Your task to perform on an android device: turn on the 24-hour format for clock Image 0: 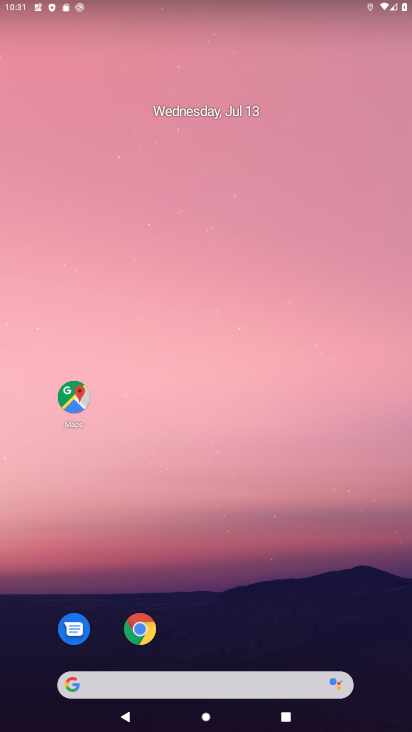
Step 0: press home button
Your task to perform on an android device: turn on the 24-hour format for clock Image 1: 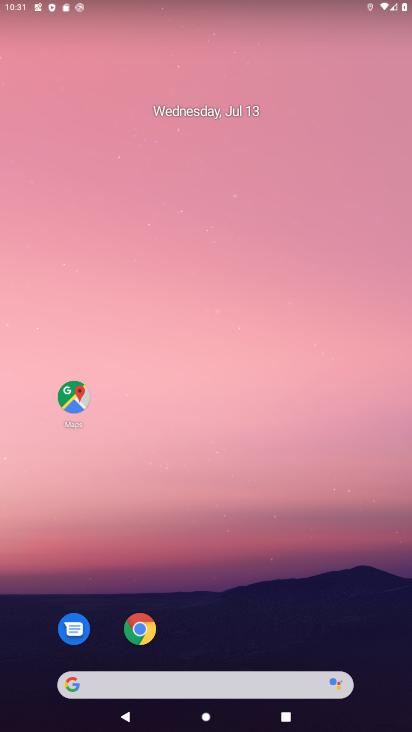
Step 1: drag from (223, 645) to (249, 24)
Your task to perform on an android device: turn on the 24-hour format for clock Image 2: 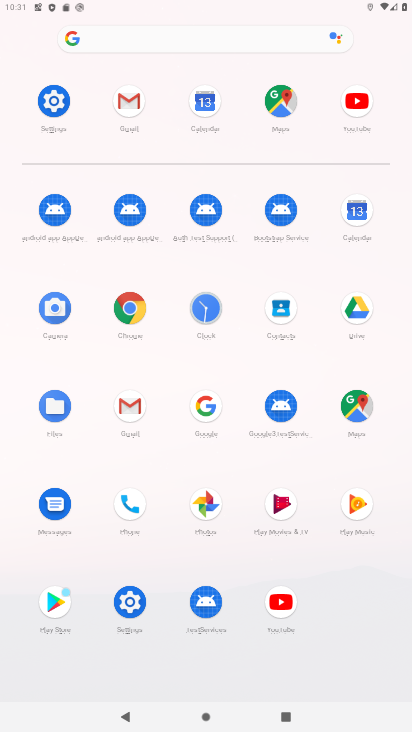
Step 2: click (203, 303)
Your task to perform on an android device: turn on the 24-hour format for clock Image 3: 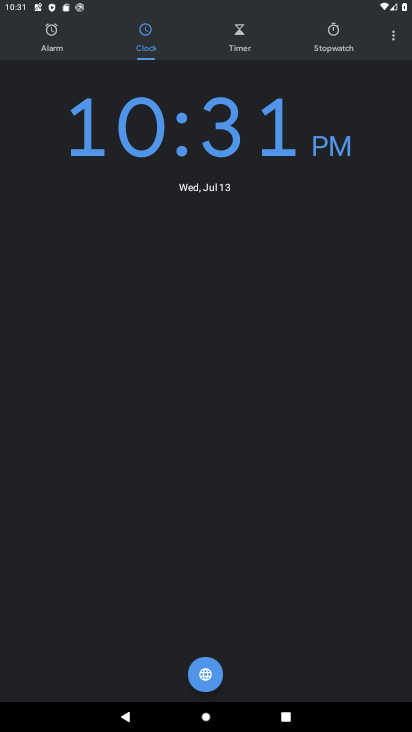
Step 3: click (397, 39)
Your task to perform on an android device: turn on the 24-hour format for clock Image 4: 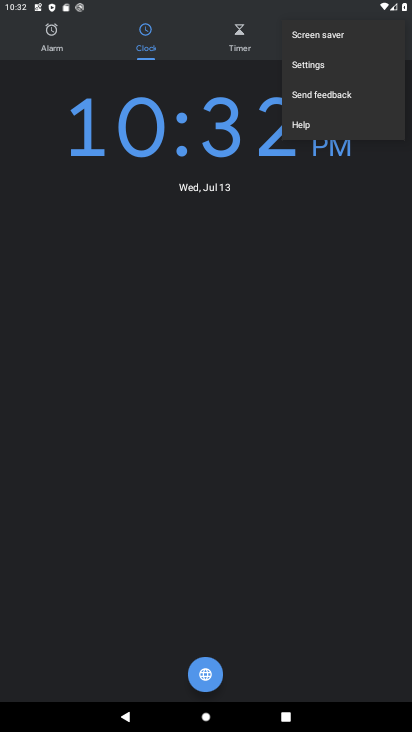
Step 4: click (332, 64)
Your task to perform on an android device: turn on the 24-hour format for clock Image 5: 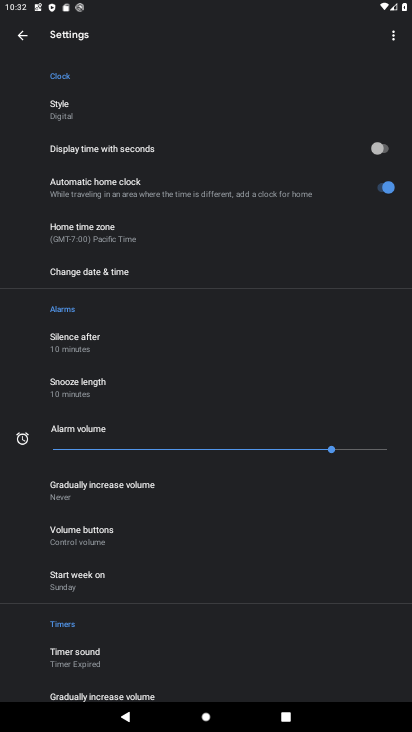
Step 5: click (140, 272)
Your task to perform on an android device: turn on the 24-hour format for clock Image 6: 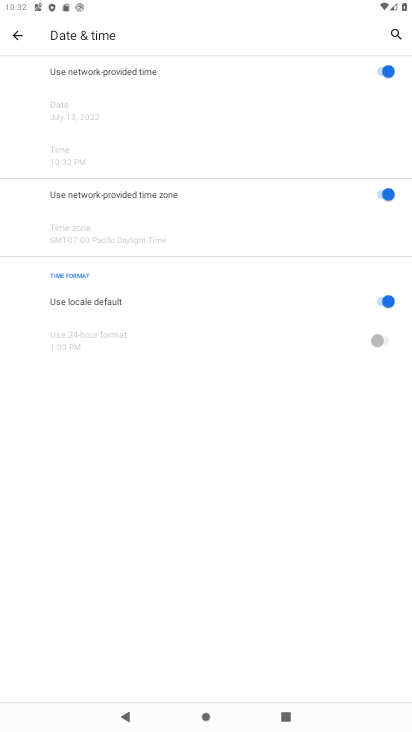
Step 6: click (393, 294)
Your task to perform on an android device: turn on the 24-hour format for clock Image 7: 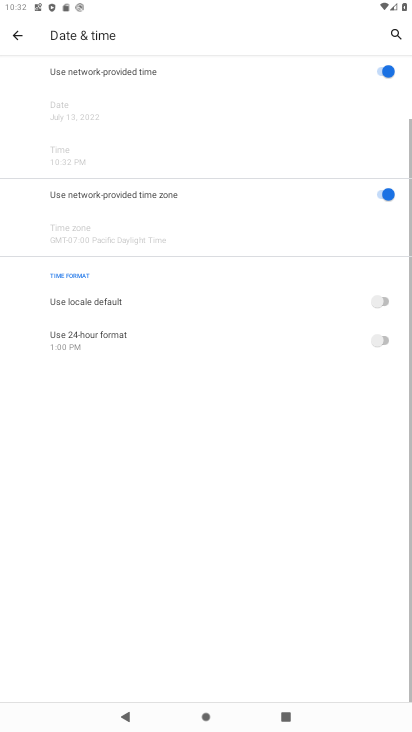
Step 7: click (382, 335)
Your task to perform on an android device: turn on the 24-hour format for clock Image 8: 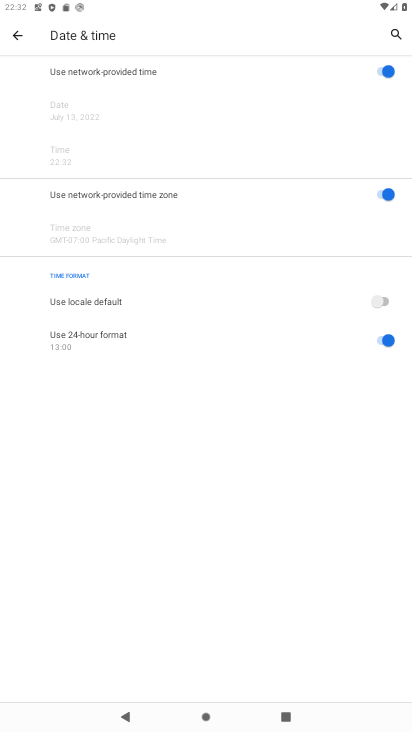
Step 8: task complete